Your task to perform on an android device: open chrome privacy settings Image 0: 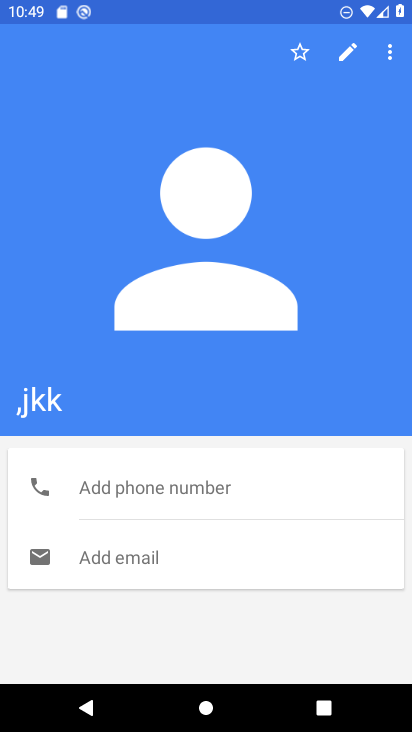
Step 0: press home button
Your task to perform on an android device: open chrome privacy settings Image 1: 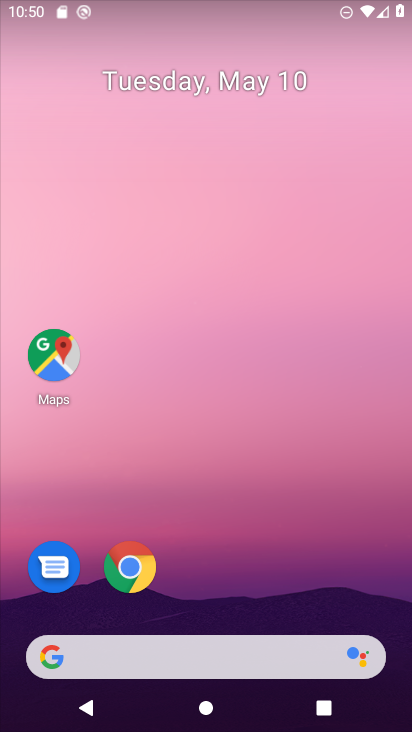
Step 1: click (130, 572)
Your task to perform on an android device: open chrome privacy settings Image 2: 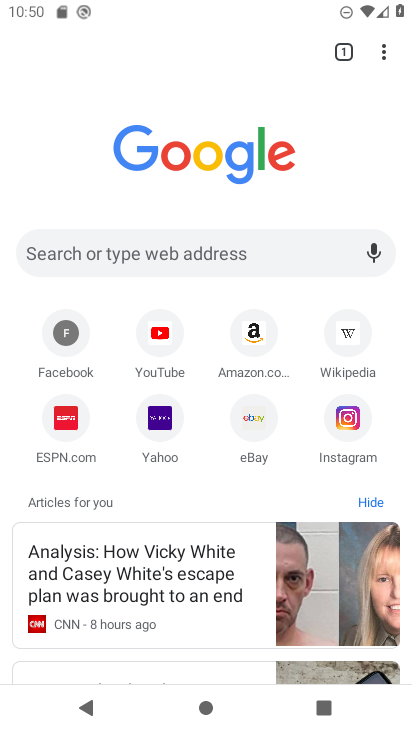
Step 2: drag from (384, 58) to (262, 436)
Your task to perform on an android device: open chrome privacy settings Image 3: 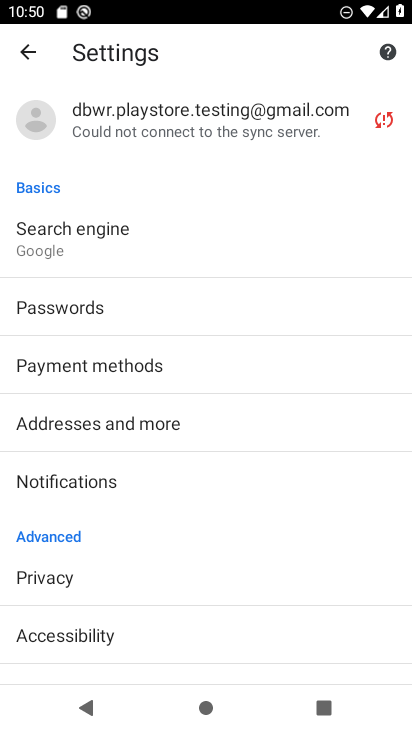
Step 3: click (50, 581)
Your task to perform on an android device: open chrome privacy settings Image 4: 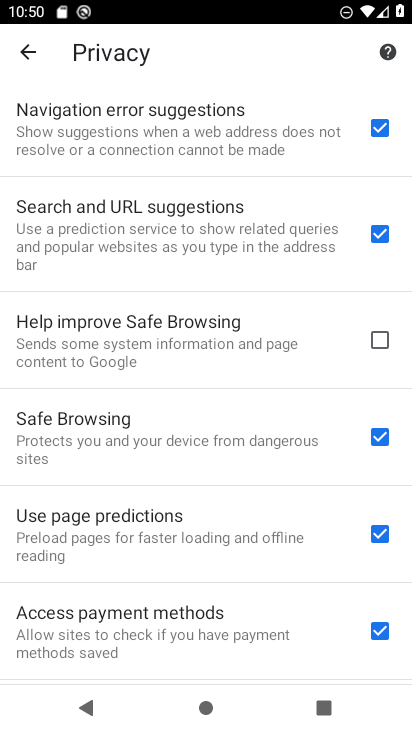
Step 4: task complete